Your task to perform on an android device: turn off notifications in google photos Image 0: 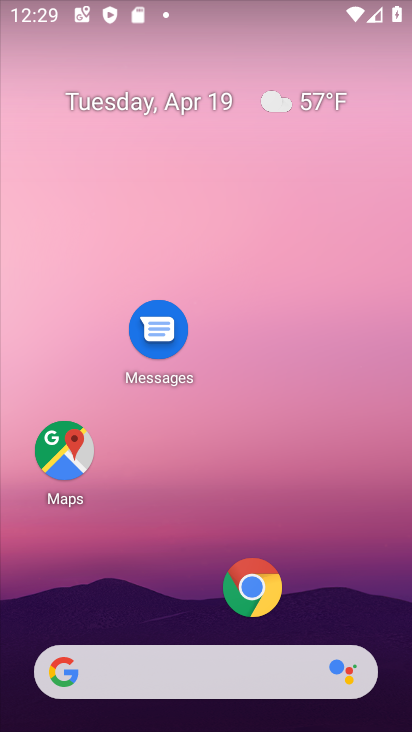
Step 0: drag from (193, 582) to (171, 210)
Your task to perform on an android device: turn off notifications in google photos Image 1: 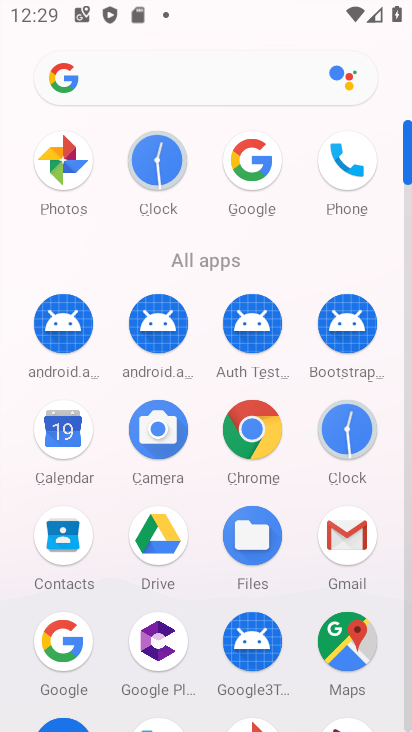
Step 1: click (60, 165)
Your task to perform on an android device: turn off notifications in google photos Image 2: 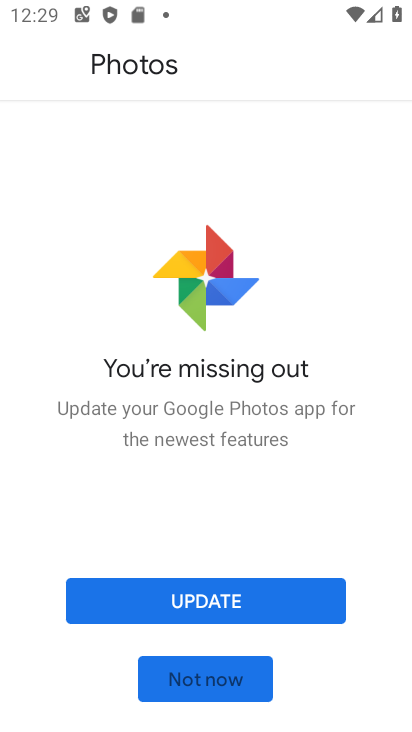
Step 2: click (202, 682)
Your task to perform on an android device: turn off notifications in google photos Image 3: 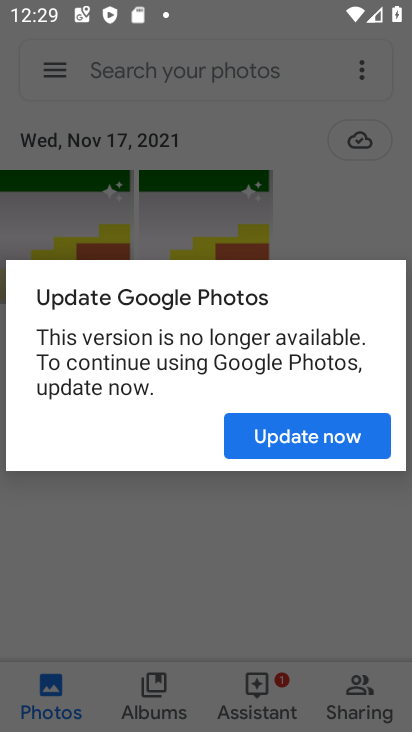
Step 3: click (272, 441)
Your task to perform on an android device: turn off notifications in google photos Image 4: 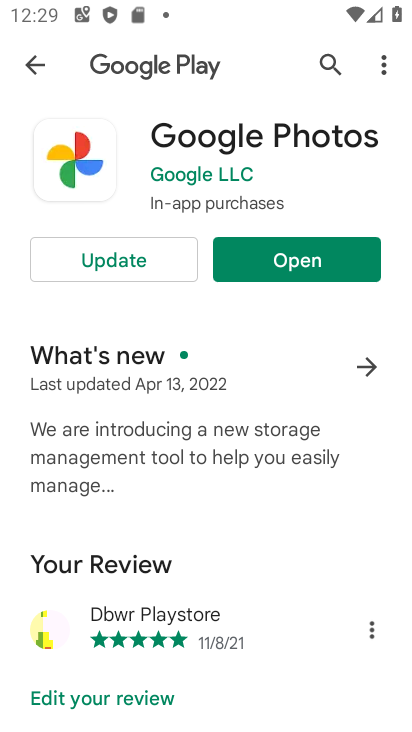
Step 4: click (251, 256)
Your task to perform on an android device: turn off notifications in google photos Image 5: 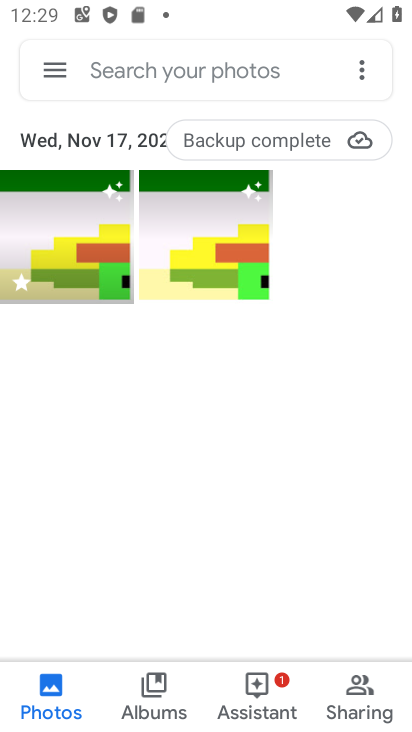
Step 5: click (44, 66)
Your task to perform on an android device: turn off notifications in google photos Image 6: 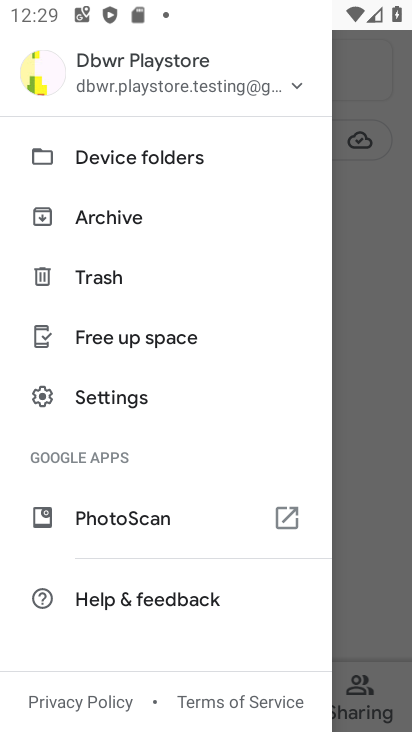
Step 6: click (94, 403)
Your task to perform on an android device: turn off notifications in google photos Image 7: 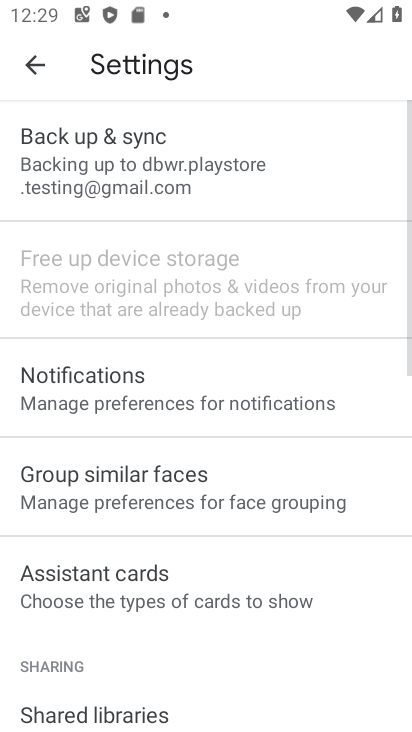
Step 7: click (125, 405)
Your task to perform on an android device: turn off notifications in google photos Image 8: 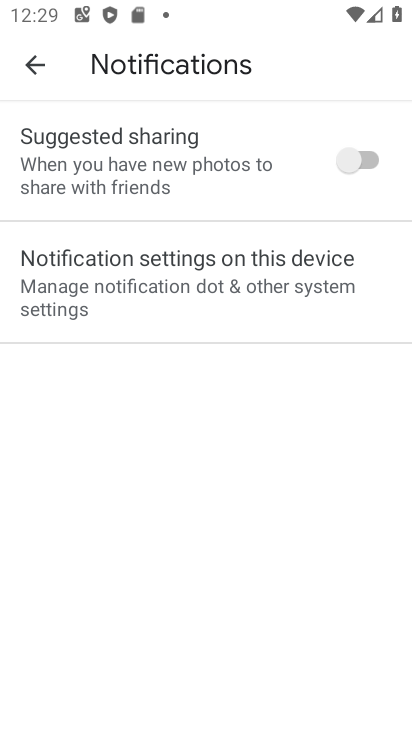
Step 8: click (235, 278)
Your task to perform on an android device: turn off notifications in google photos Image 9: 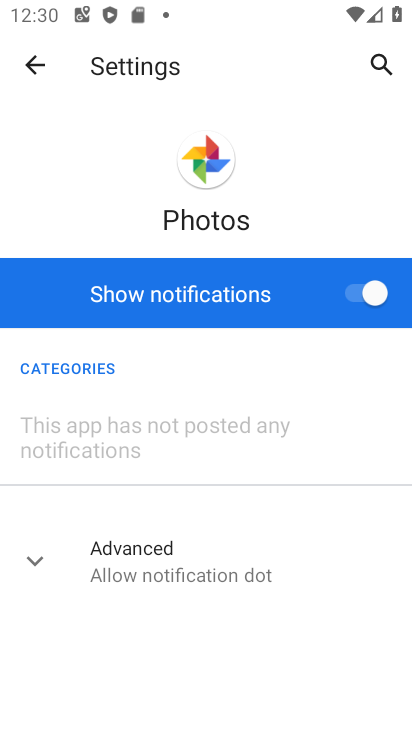
Step 9: click (379, 290)
Your task to perform on an android device: turn off notifications in google photos Image 10: 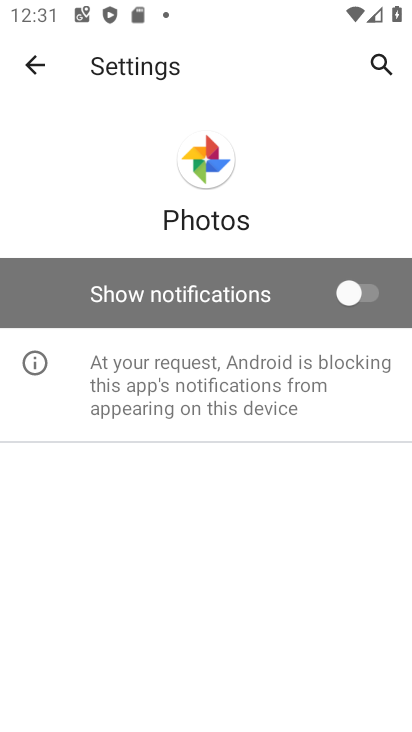
Step 10: task complete